Your task to perform on an android device: Open location settings Image 0: 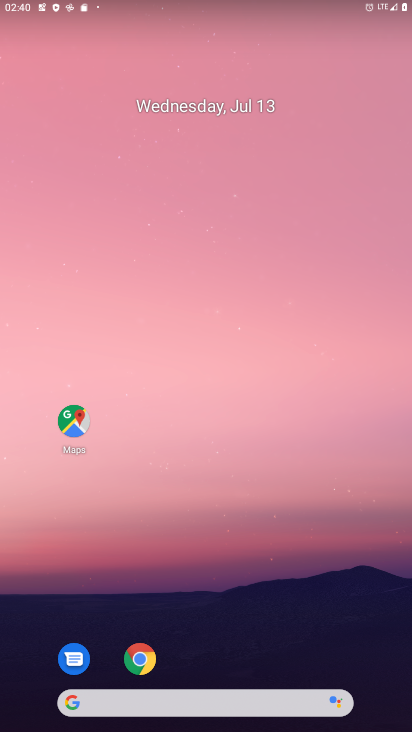
Step 0: drag from (271, 698) to (261, 122)
Your task to perform on an android device: Open location settings Image 1: 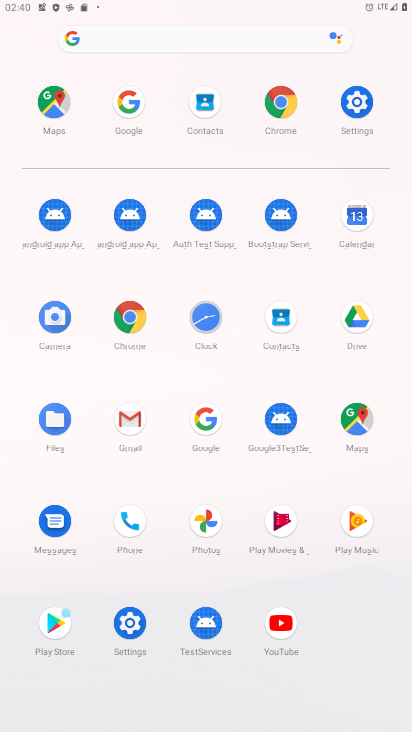
Step 1: click (363, 100)
Your task to perform on an android device: Open location settings Image 2: 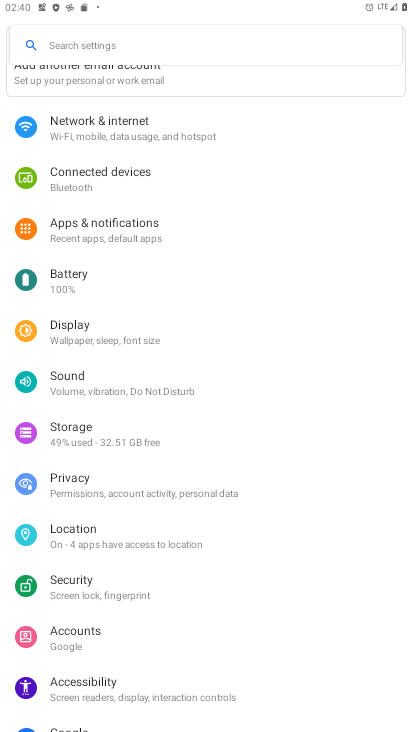
Step 2: click (89, 535)
Your task to perform on an android device: Open location settings Image 3: 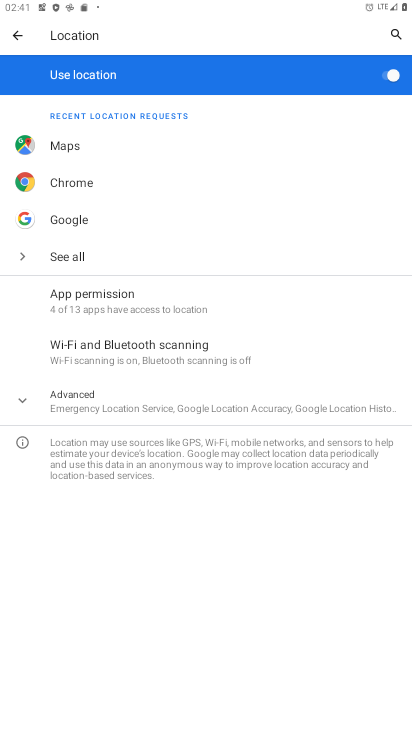
Step 3: task complete